Your task to perform on an android device: Go to Android settings Image 0: 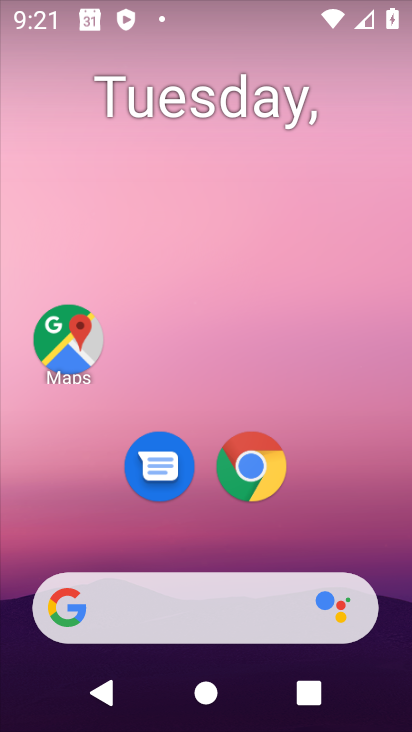
Step 0: drag from (328, 481) to (316, 22)
Your task to perform on an android device: Go to Android settings Image 1: 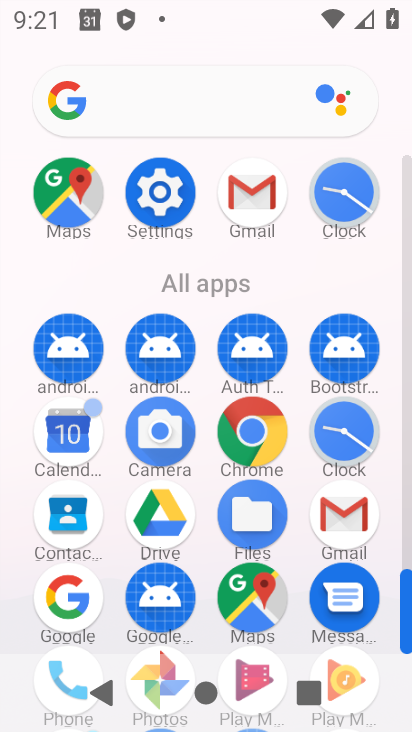
Step 1: click (182, 207)
Your task to perform on an android device: Go to Android settings Image 2: 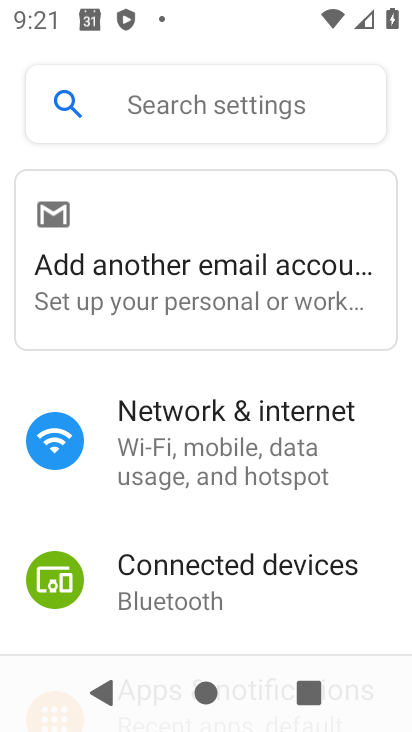
Step 2: task complete